Your task to perform on an android device: turn off sleep mode Image 0: 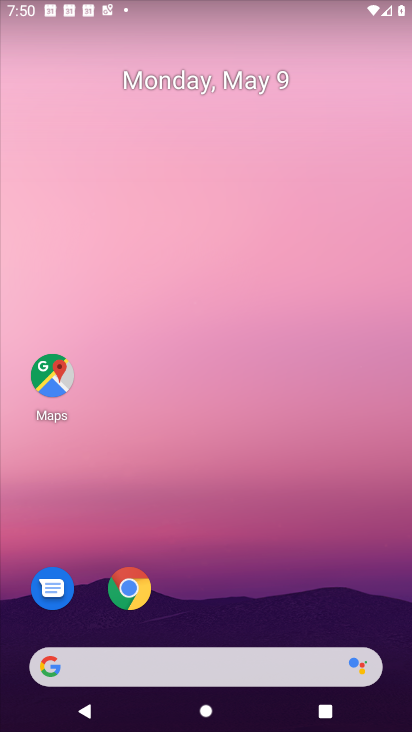
Step 0: press home button
Your task to perform on an android device: turn off sleep mode Image 1: 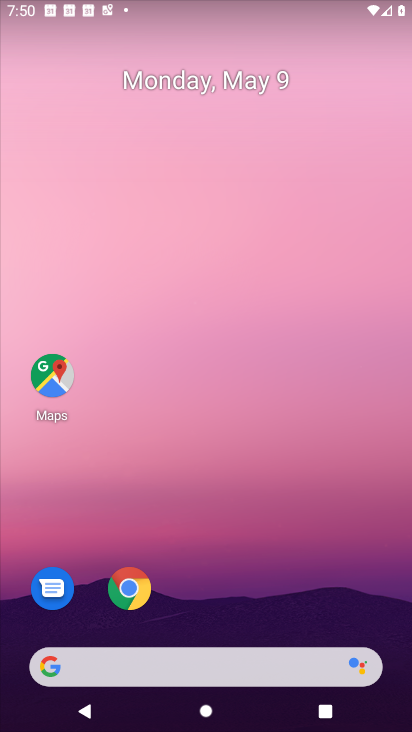
Step 1: drag from (226, 666) to (350, 94)
Your task to perform on an android device: turn off sleep mode Image 2: 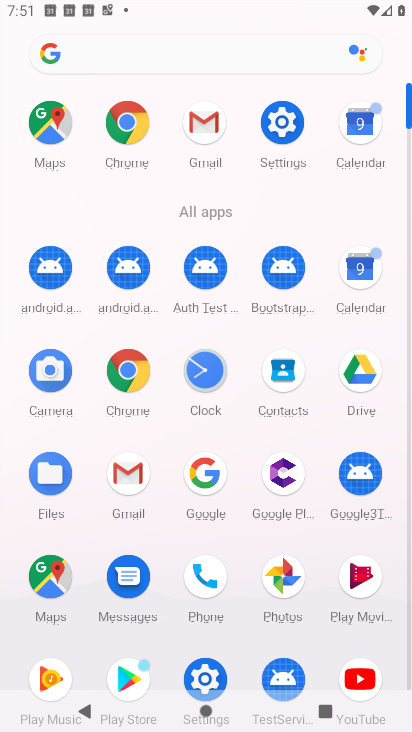
Step 2: click (282, 127)
Your task to perform on an android device: turn off sleep mode Image 3: 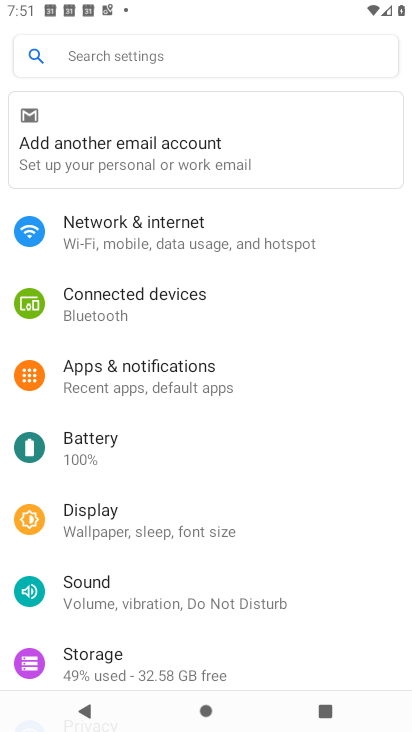
Step 3: click (107, 523)
Your task to perform on an android device: turn off sleep mode Image 4: 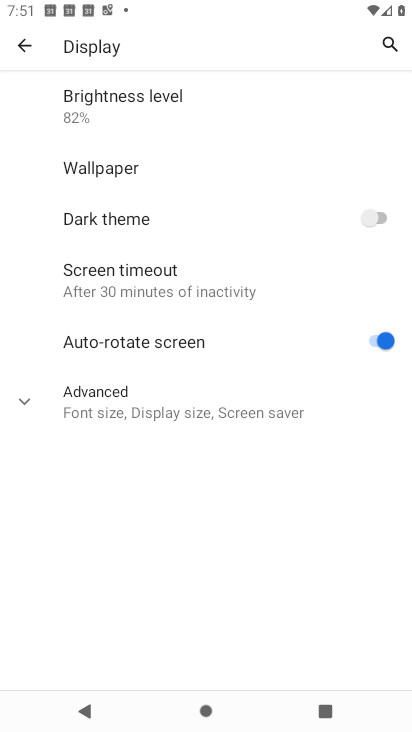
Step 4: task complete